Your task to perform on an android device: Open the stopwatch Image 0: 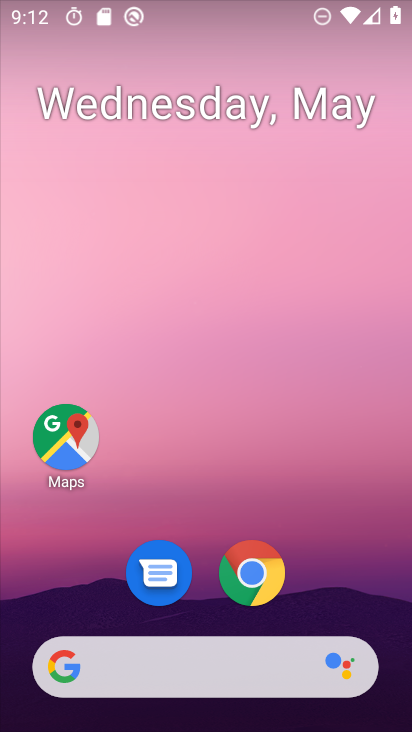
Step 0: drag from (396, 672) to (360, 243)
Your task to perform on an android device: Open the stopwatch Image 1: 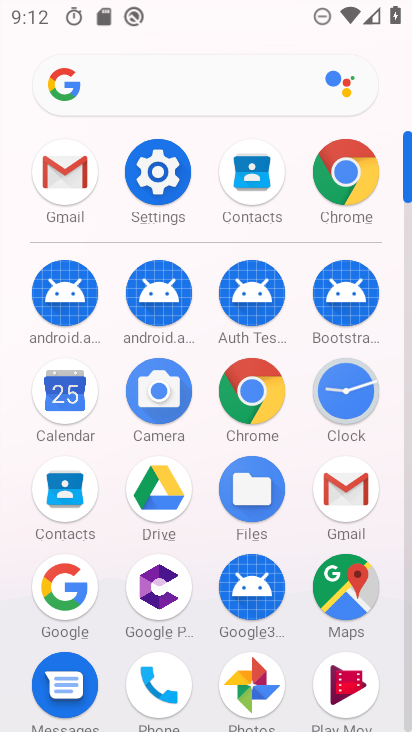
Step 1: click (338, 389)
Your task to perform on an android device: Open the stopwatch Image 2: 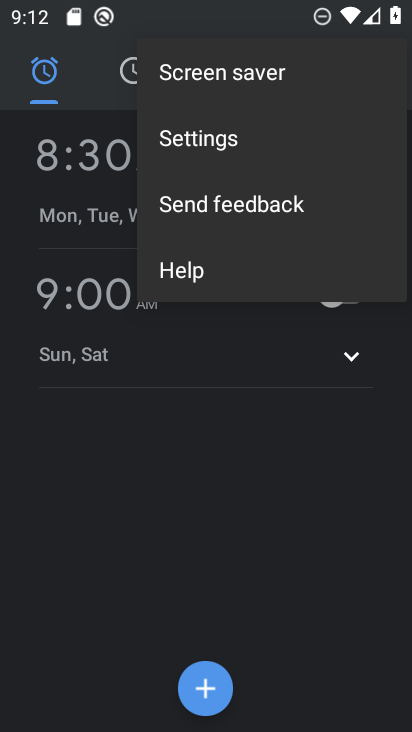
Step 2: click (213, 138)
Your task to perform on an android device: Open the stopwatch Image 3: 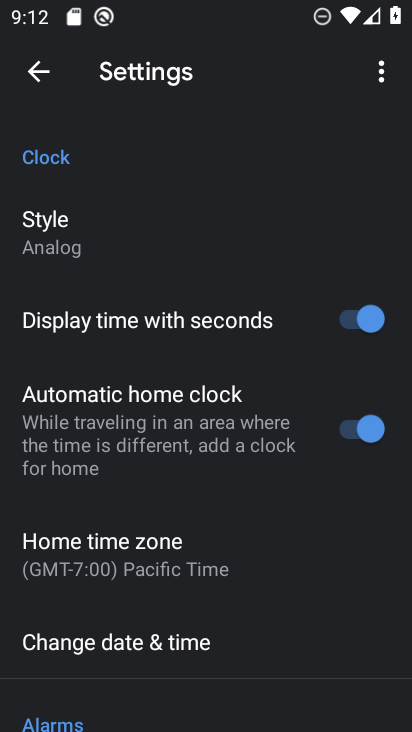
Step 3: click (33, 77)
Your task to perform on an android device: Open the stopwatch Image 4: 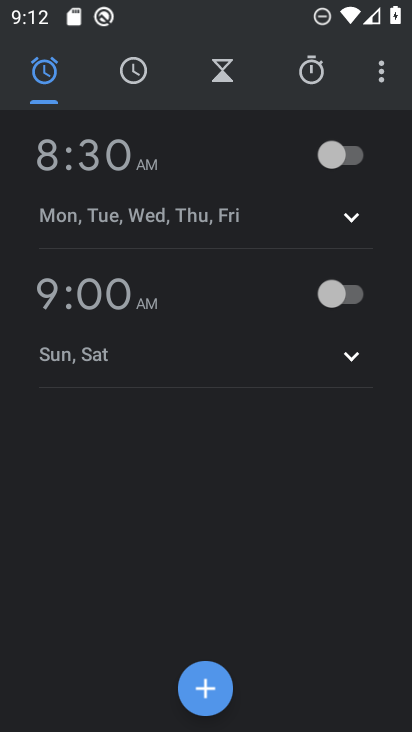
Step 4: click (24, 80)
Your task to perform on an android device: Open the stopwatch Image 5: 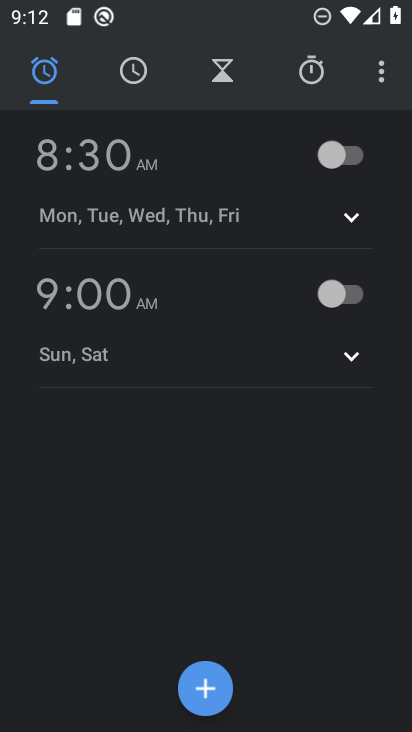
Step 5: click (326, 76)
Your task to perform on an android device: Open the stopwatch Image 6: 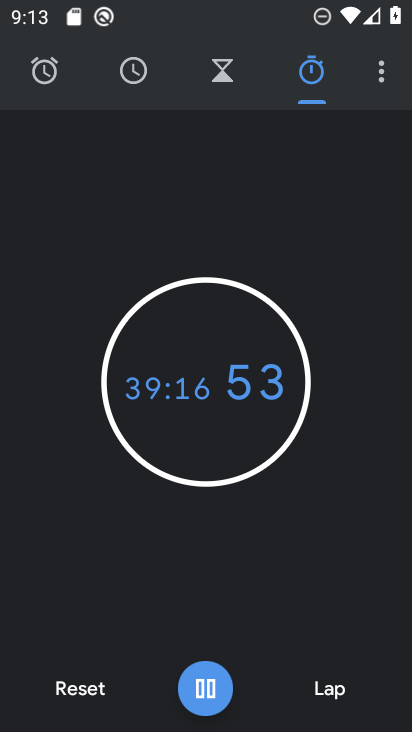
Step 6: task complete